Your task to perform on an android device: turn vacation reply on in the gmail app Image 0: 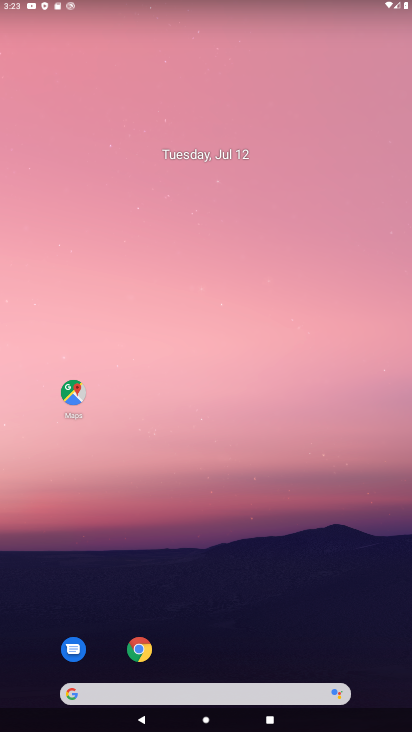
Step 0: drag from (221, 664) to (198, 28)
Your task to perform on an android device: turn vacation reply on in the gmail app Image 1: 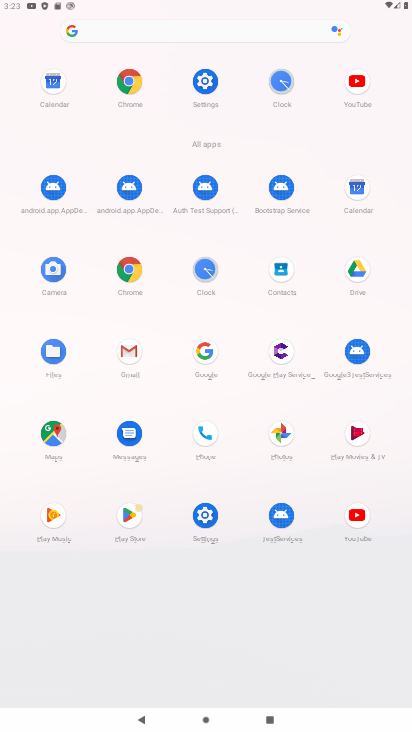
Step 1: click (123, 348)
Your task to perform on an android device: turn vacation reply on in the gmail app Image 2: 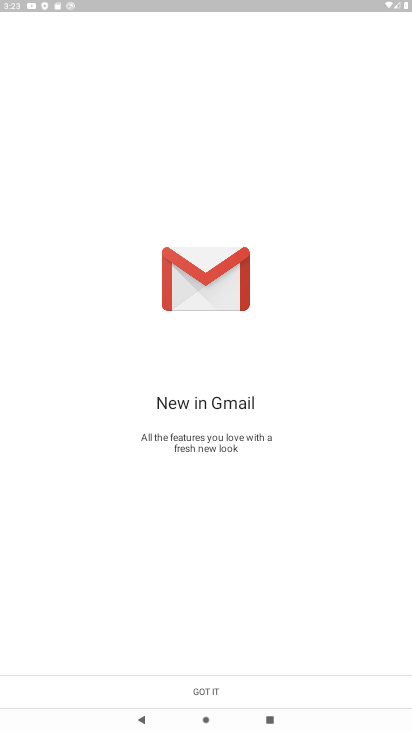
Step 2: click (205, 690)
Your task to perform on an android device: turn vacation reply on in the gmail app Image 3: 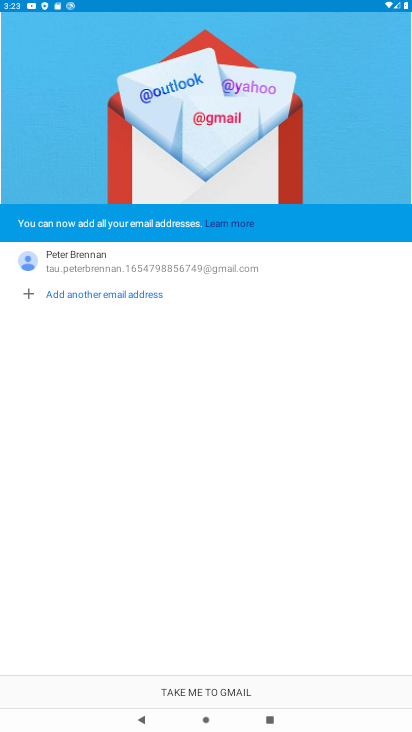
Step 3: click (199, 693)
Your task to perform on an android device: turn vacation reply on in the gmail app Image 4: 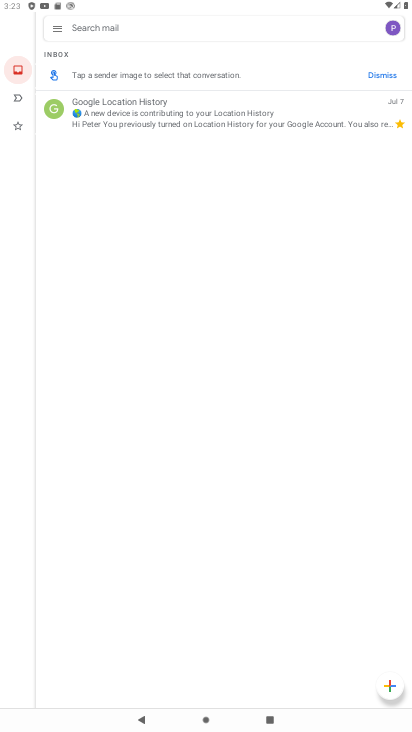
Step 4: click (57, 25)
Your task to perform on an android device: turn vacation reply on in the gmail app Image 5: 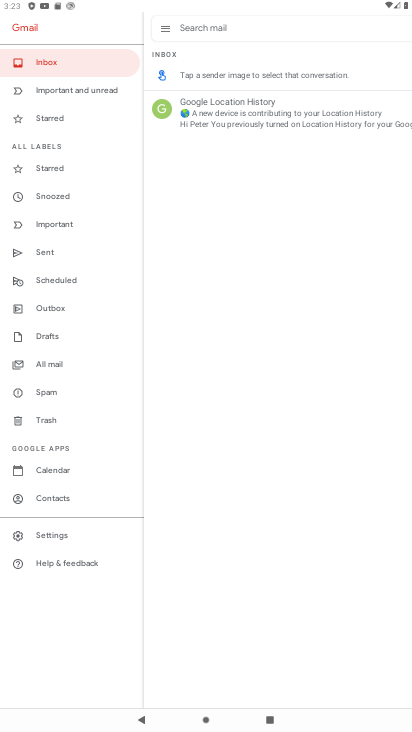
Step 5: click (77, 531)
Your task to perform on an android device: turn vacation reply on in the gmail app Image 6: 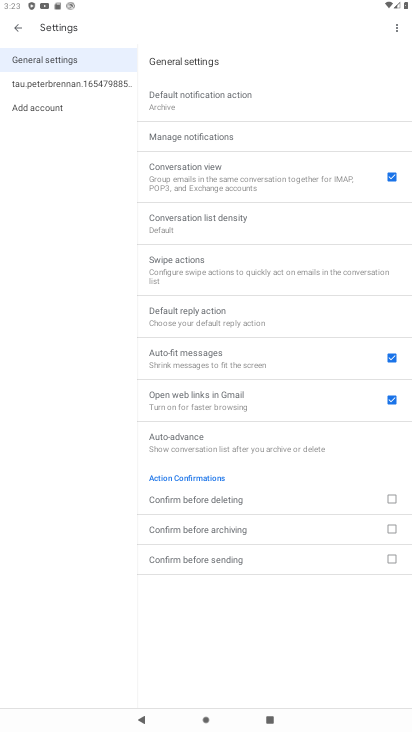
Step 6: click (97, 85)
Your task to perform on an android device: turn vacation reply on in the gmail app Image 7: 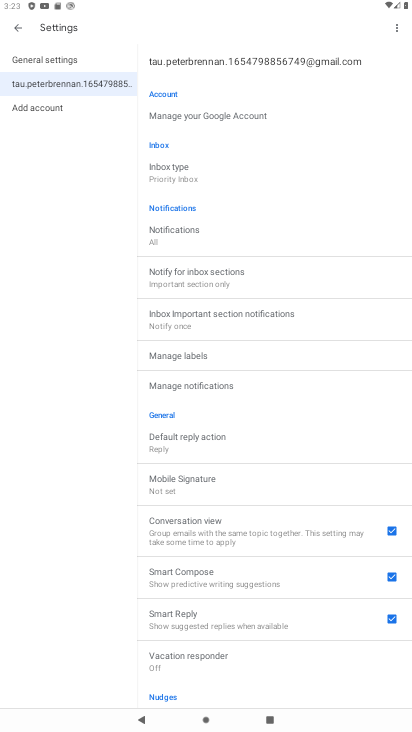
Step 7: click (225, 658)
Your task to perform on an android device: turn vacation reply on in the gmail app Image 8: 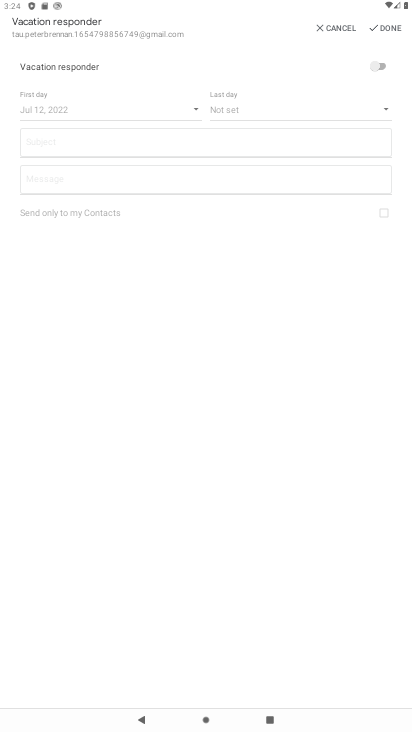
Step 8: task complete